Your task to perform on an android device: turn on the 24-hour format for clock Image 0: 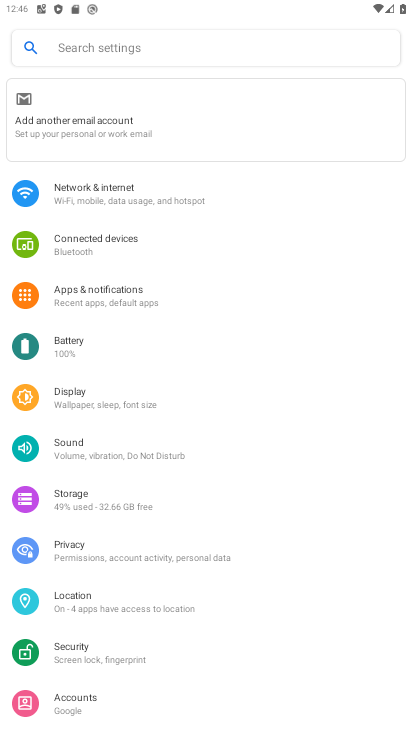
Step 0: press home button
Your task to perform on an android device: turn on the 24-hour format for clock Image 1: 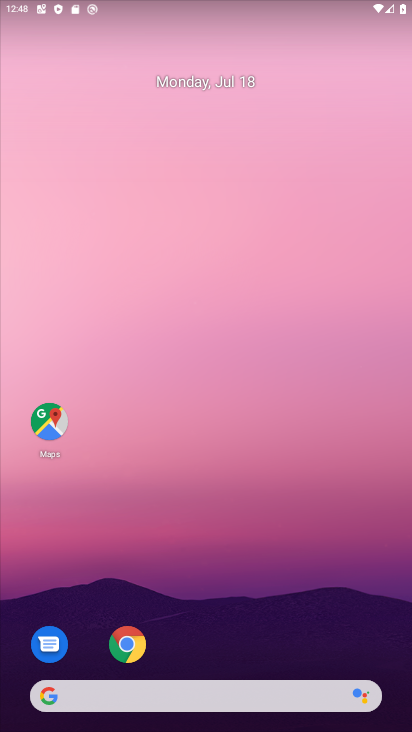
Step 1: drag from (297, 716) to (148, 264)
Your task to perform on an android device: turn on the 24-hour format for clock Image 2: 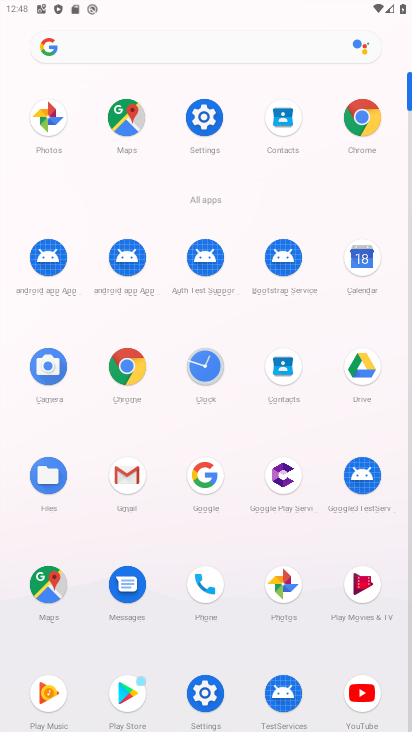
Step 2: click (146, 253)
Your task to perform on an android device: turn on the 24-hour format for clock Image 3: 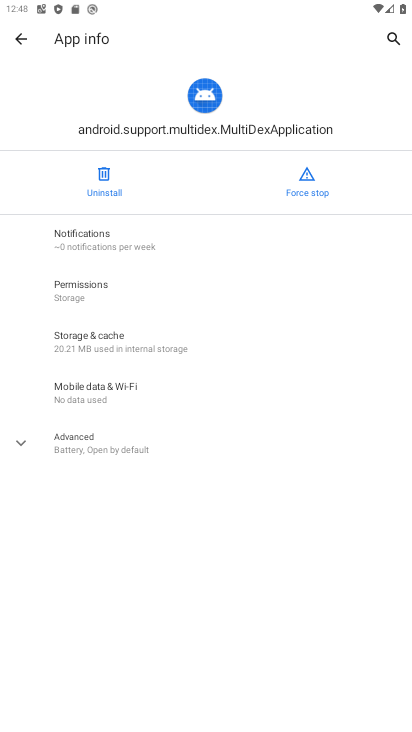
Step 3: press back button
Your task to perform on an android device: turn on the 24-hour format for clock Image 4: 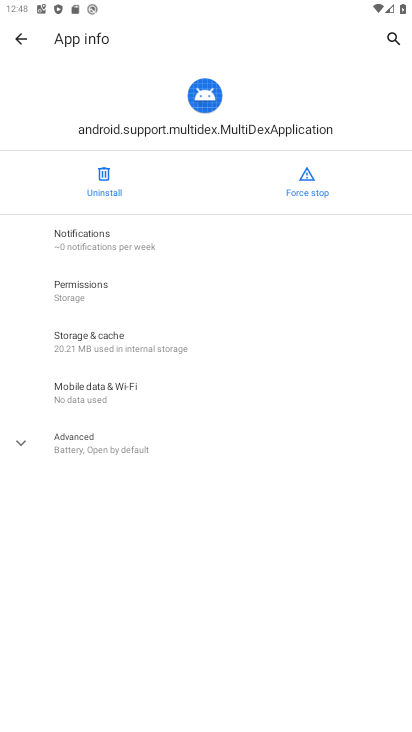
Step 4: press back button
Your task to perform on an android device: turn on the 24-hour format for clock Image 5: 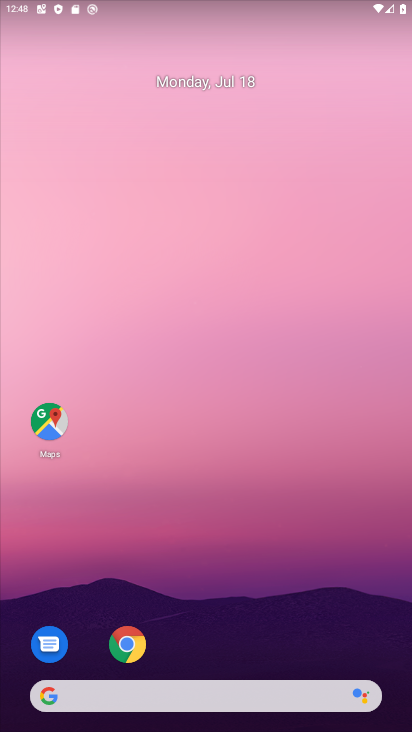
Step 5: drag from (313, 632) to (18, 125)
Your task to perform on an android device: turn on the 24-hour format for clock Image 6: 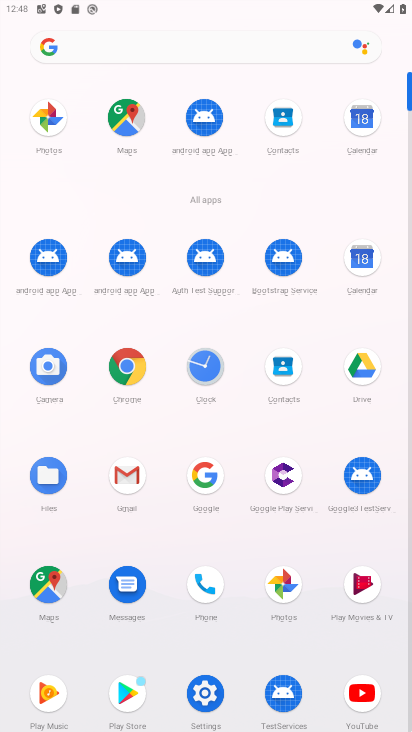
Step 6: click (185, 342)
Your task to perform on an android device: turn on the 24-hour format for clock Image 7: 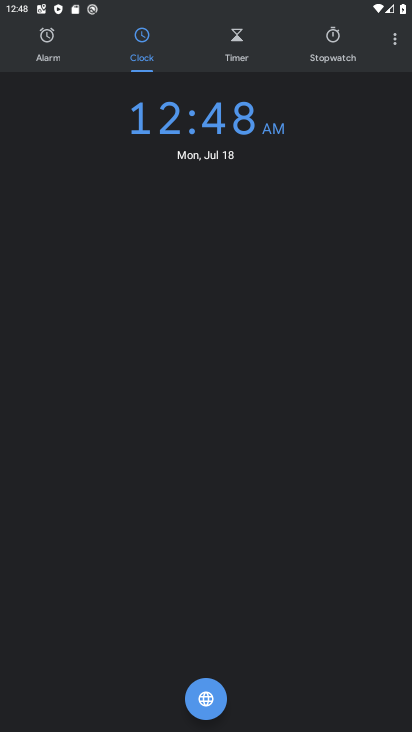
Step 7: click (405, 31)
Your task to perform on an android device: turn on the 24-hour format for clock Image 8: 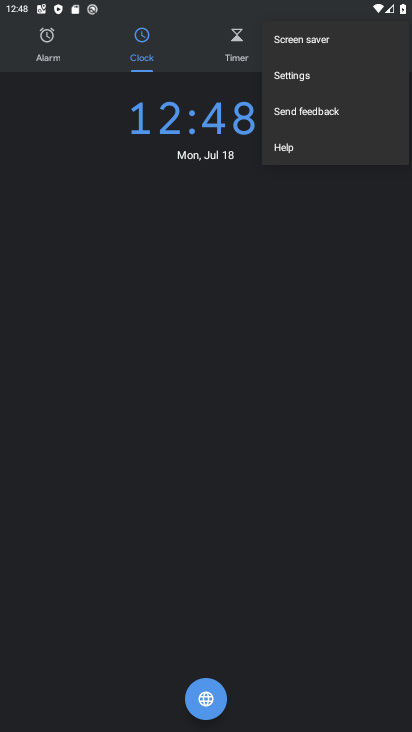
Step 8: click (283, 73)
Your task to perform on an android device: turn on the 24-hour format for clock Image 9: 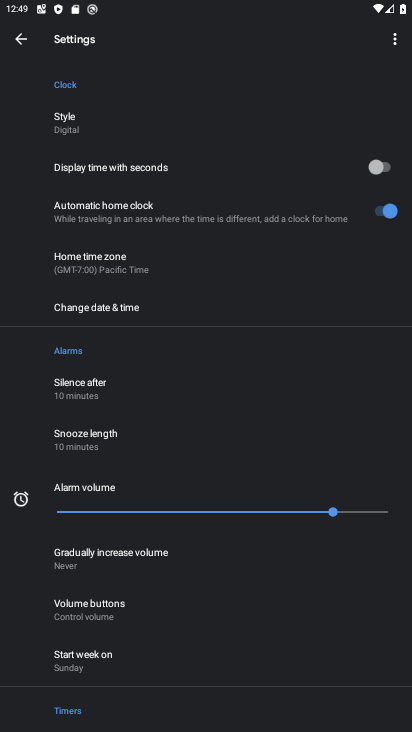
Step 9: click (90, 302)
Your task to perform on an android device: turn on the 24-hour format for clock Image 10: 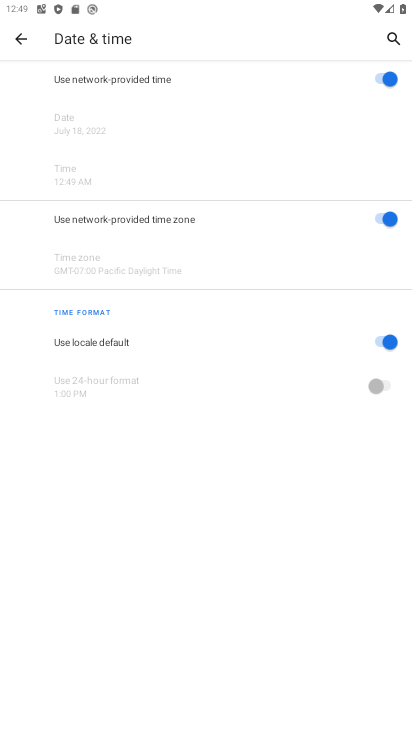
Step 10: click (376, 334)
Your task to perform on an android device: turn on the 24-hour format for clock Image 11: 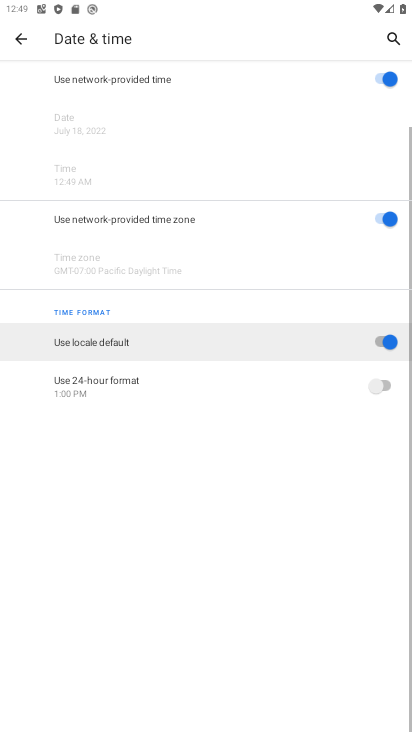
Step 11: click (376, 383)
Your task to perform on an android device: turn on the 24-hour format for clock Image 12: 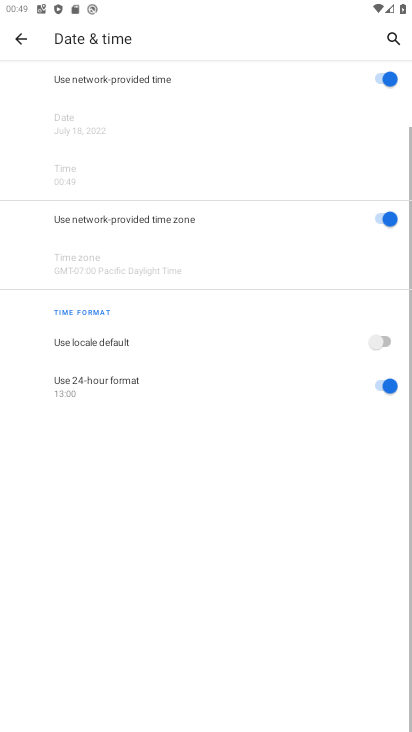
Step 12: task complete